Your task to perform on an android device: change text size in settings app Image 0: 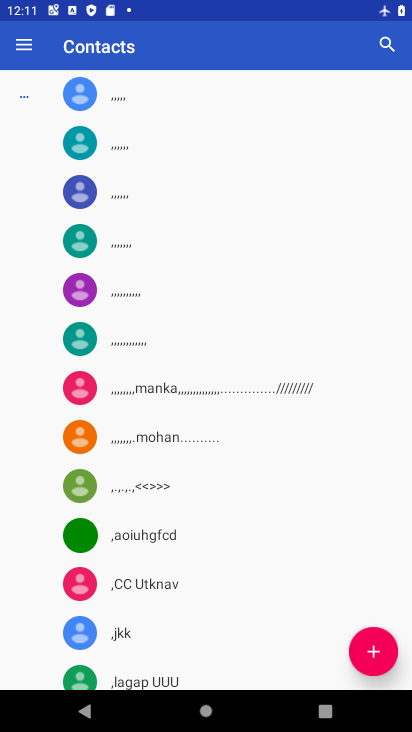
Step 0: press home button
Your task to perform on an android device: change text size in settings app Image 1: 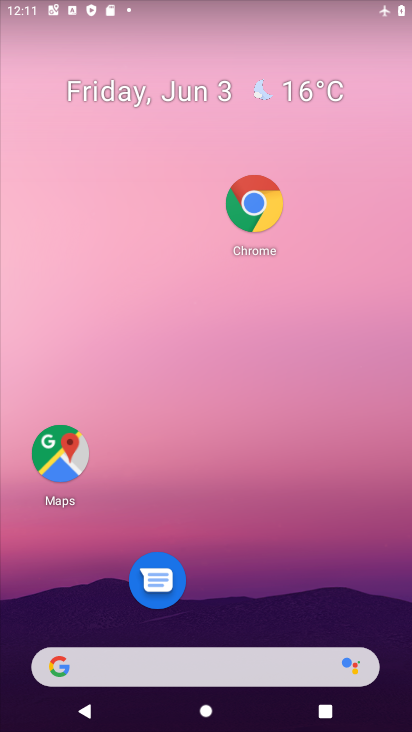
Step 1: drag from (321, 544) to (338, 118)
Your task to perform on an android device: change text size in settings app Image 2: 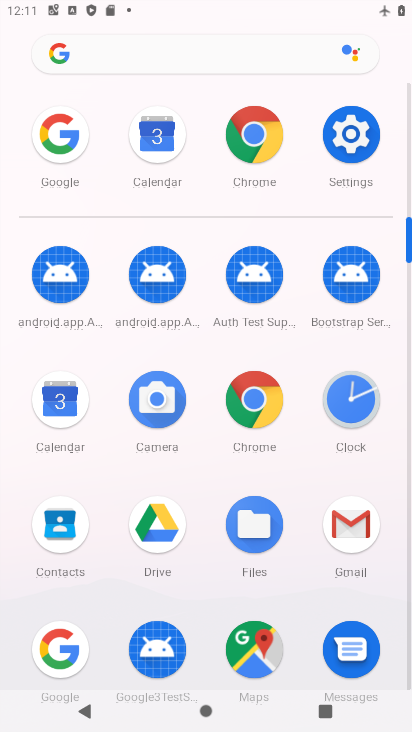
Step 2: click (365, 161)
Your task to perform on an android device: change text size in settings app Image 3: 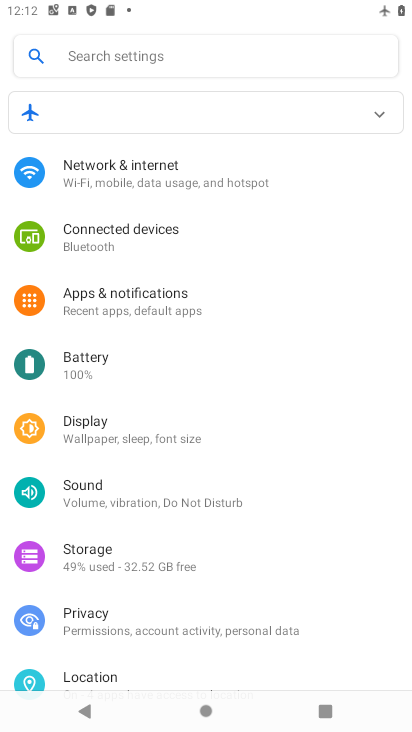
Step 3: click (173, 430)
Your task to perform on an android device: change text size in settings app Image 4: 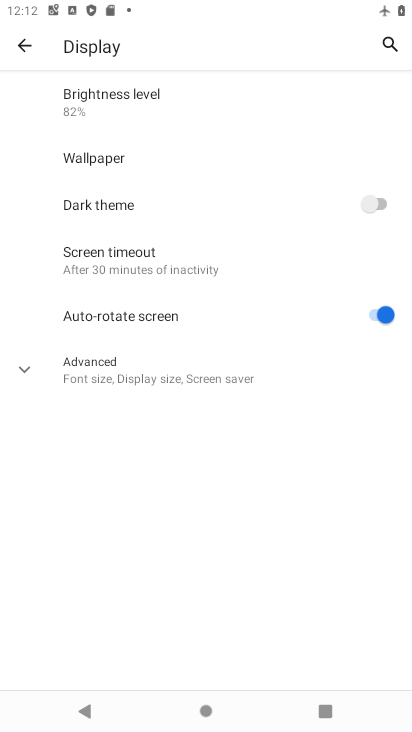
Step 4: click (135, 365)
Your task to perform on an android device: change text size in settings app Image 5: 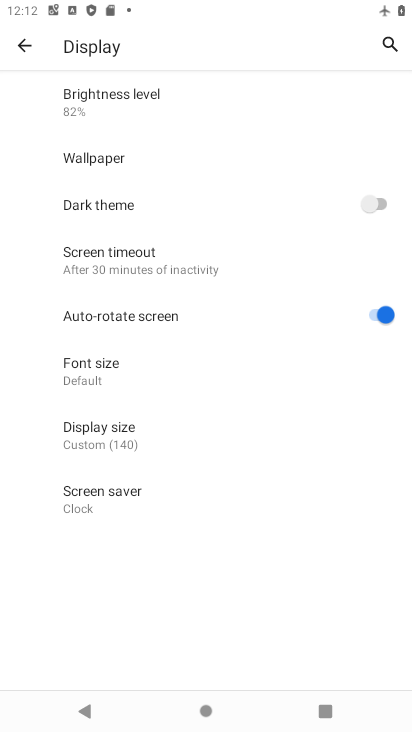
Step 5: click (112, 377)
Your task to perform on an android device: change text size in settings app Image 6: 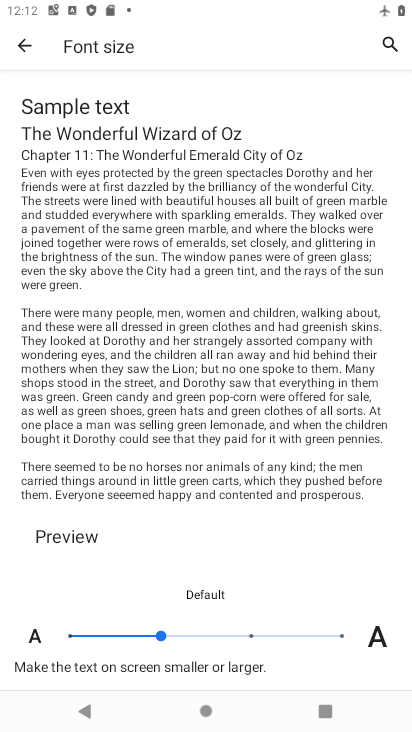
Step 6: click (253, 634)
Your task to perform on an android device: change text size in settings app Image 7: 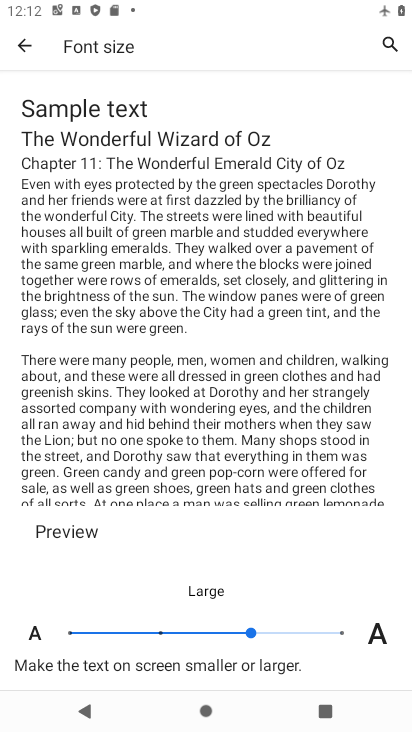
Step 7: task complete